Your task to perform on an android device: see sites visited before in the chrome app Image 0: 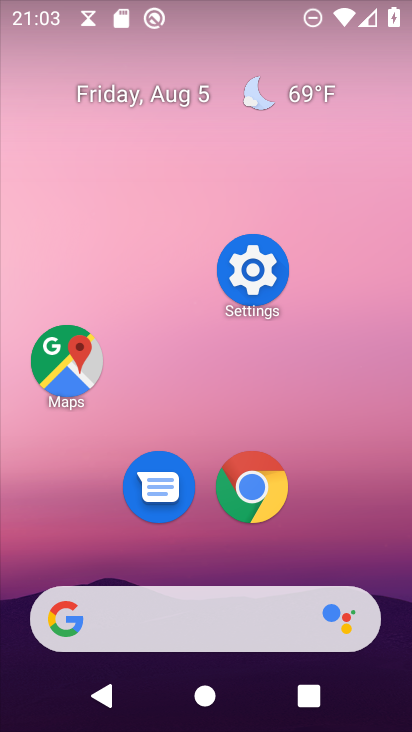
Step 0: click (250, 489)
Your task to perform on an android device: see sites visited before in the chrome app Image 1: 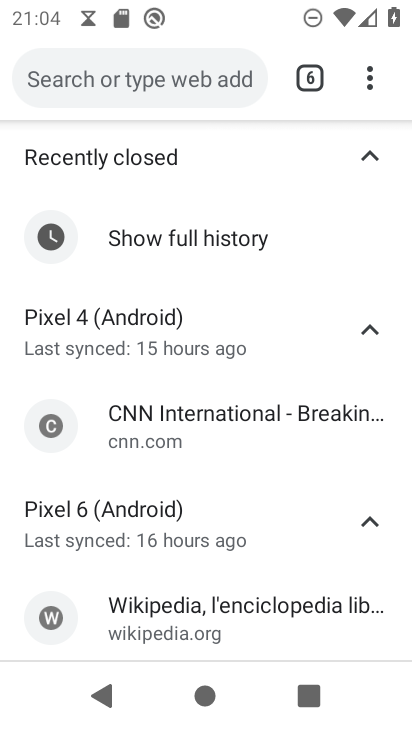
Step 1: click (361, 84)
Your task to perform on an android device: see sites visited before in the chrome app Image 2: 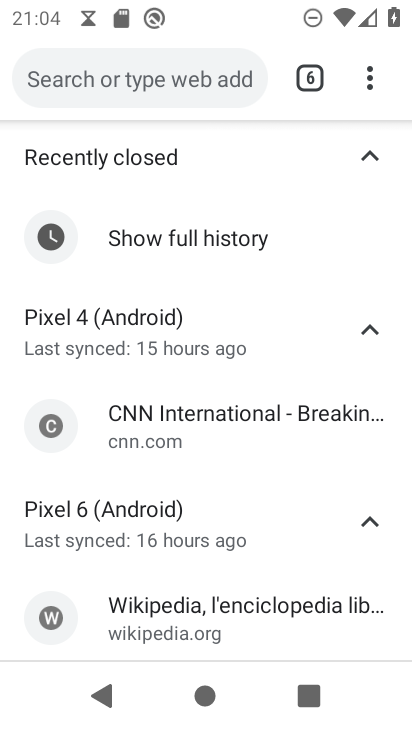
Step 2: click (134, 365)
Your task to perform on an android device: see sites visited before in the chrome app Image 3: 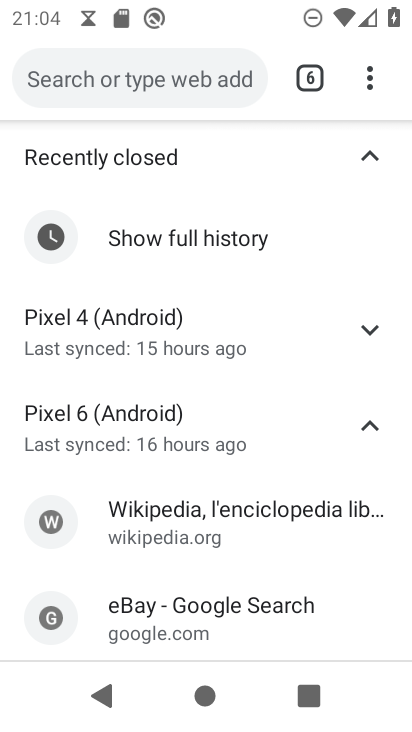
Step 3: task complete